Your task to perform on an android device: What's the weather going to be tomorrow? Image 0: 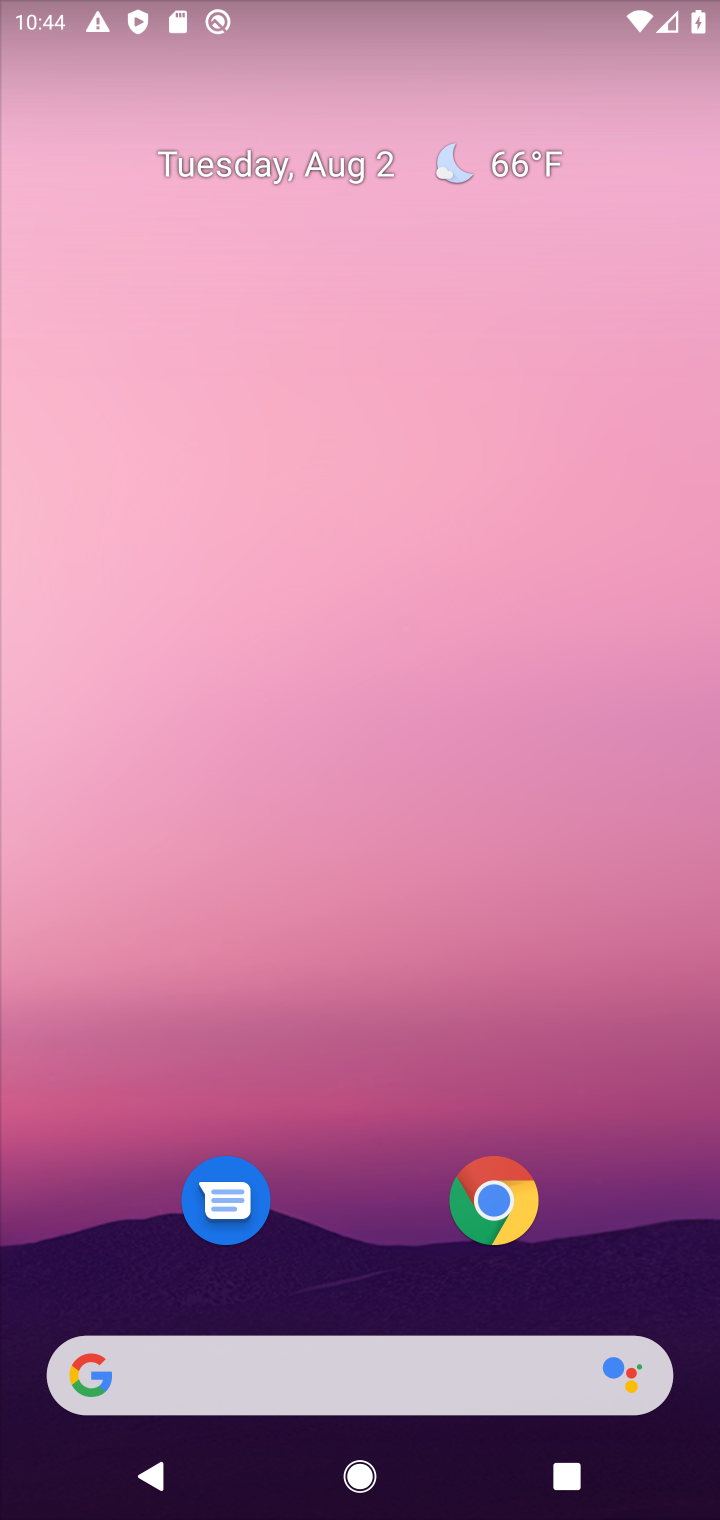
Step 0: click (528, 162)
Your task to perform on an android device: What's the weather going to be tomorrow? Image 1: 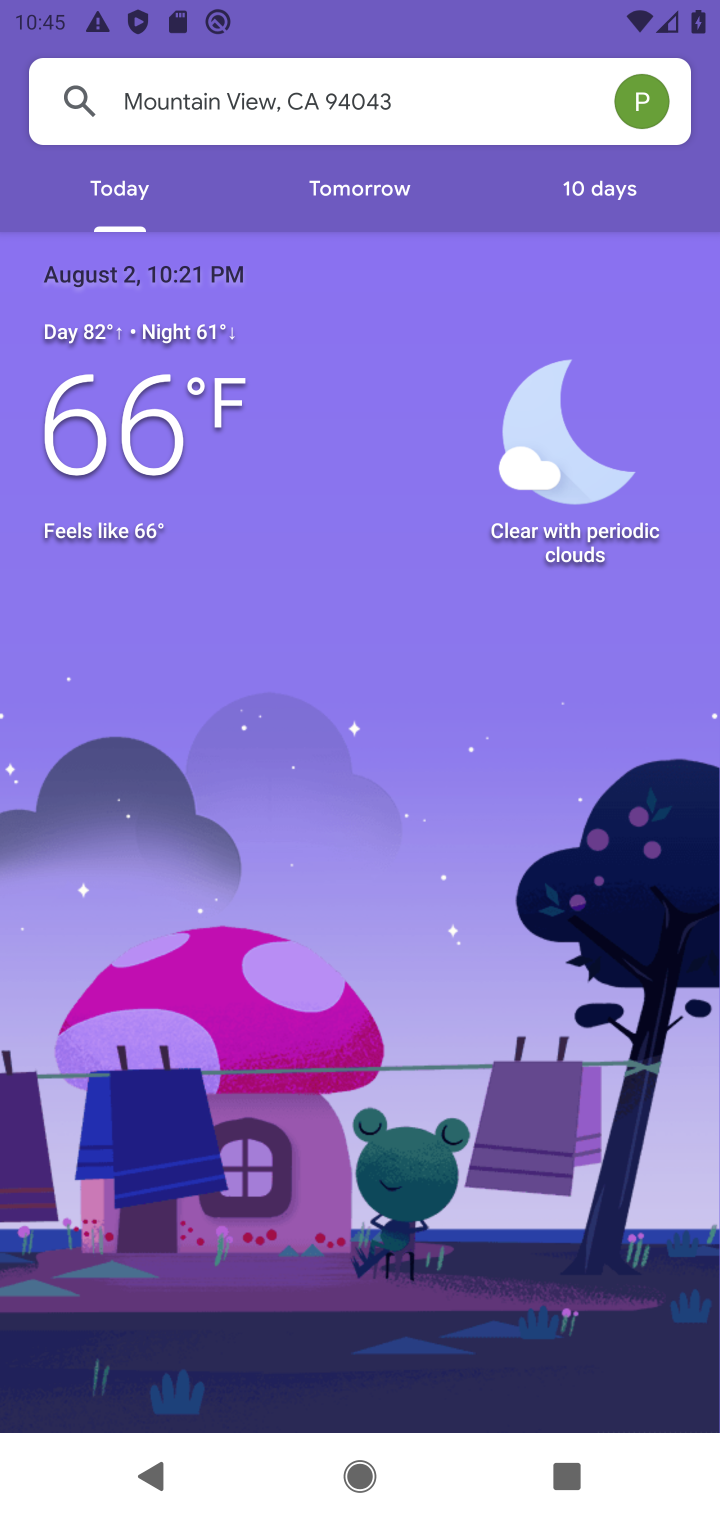
Step 1: click (370, 197)
Your task to perform on an android device: What's the weather going to be tomorrow? Image 2: 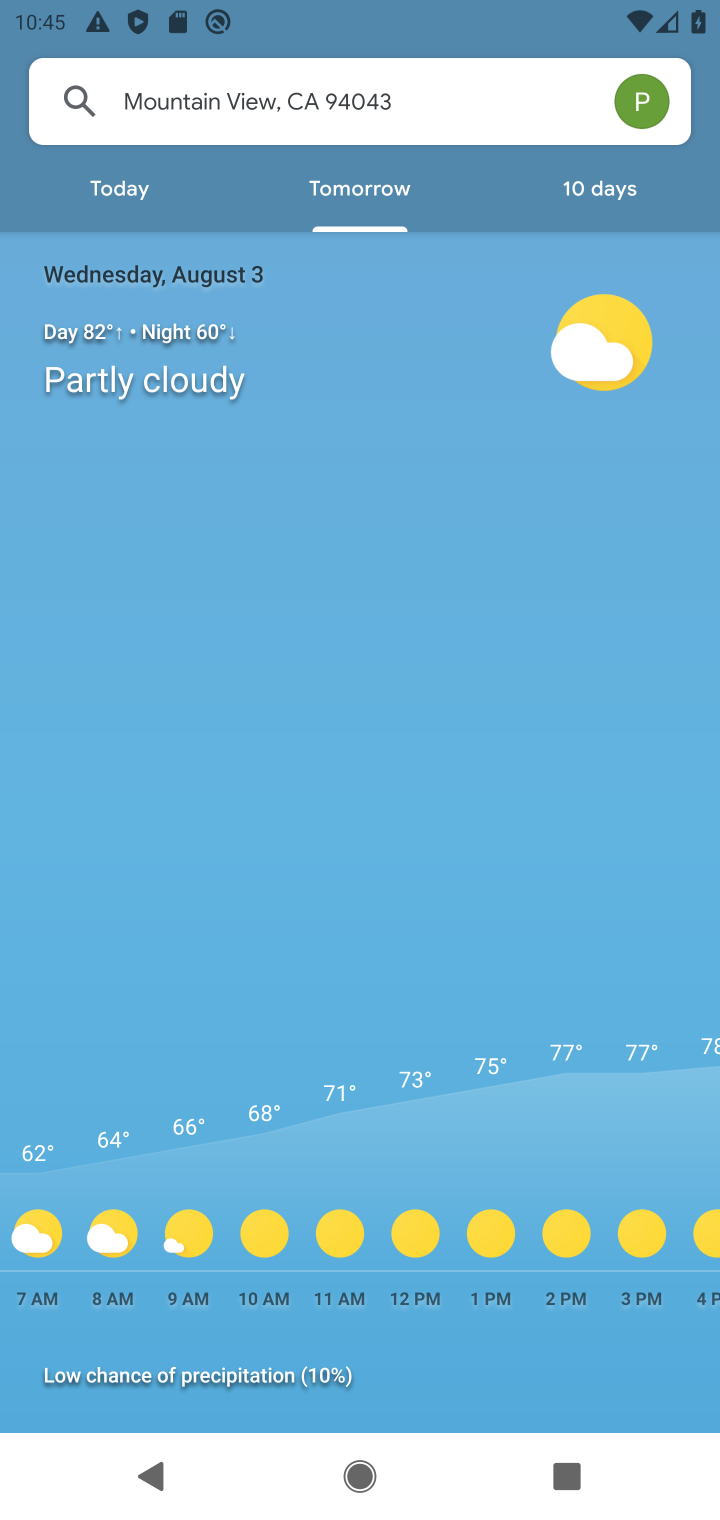
Step 2: task complete